Your task to perform on an android device: Open Google Maps Image 0: 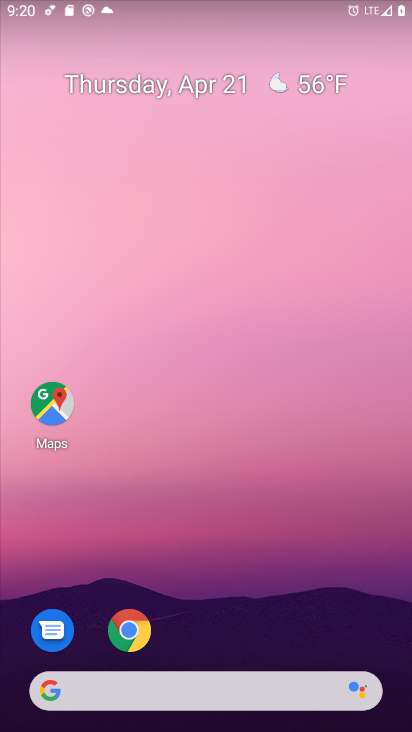
Step 0: click (335, 36)
Your task to perform on an android device: Open Google Maps Image 1: 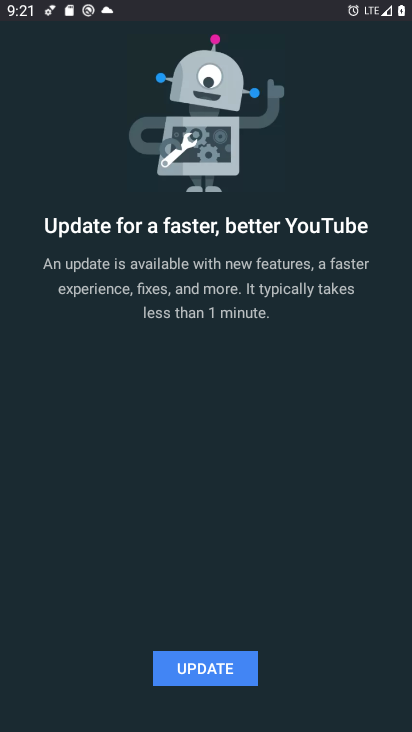
Step 1: press home button
Your task to perform on an android device: Open Google Maps Image 2: 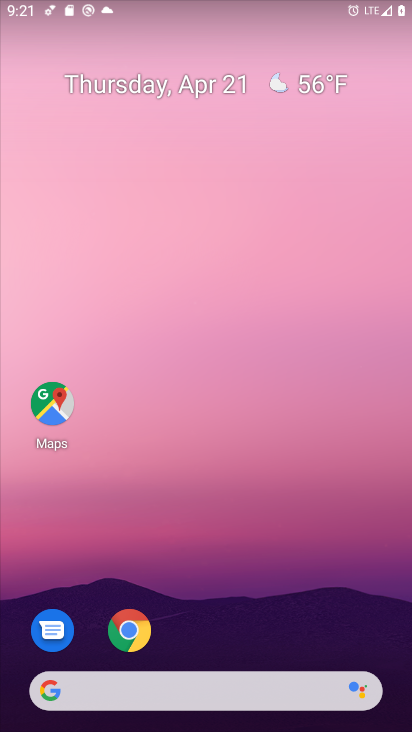
Step 2: click (62, 389)
Your task to perform on an android device: Open Google Maps Image 3: 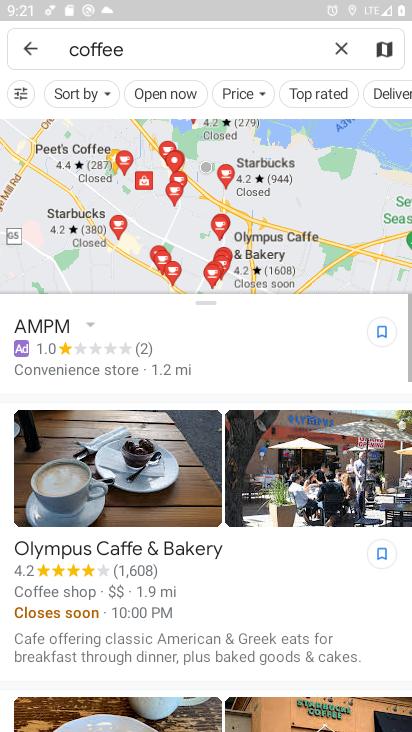
Step 3: click (24, 41)
Your task to perform on an android device: Open Google Maps Image 4: 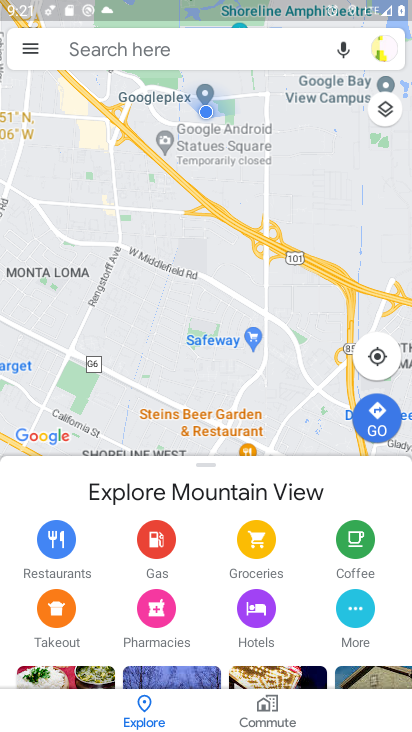
Step 4: task complete